Your task to perform on an android device: turn off notifications settings in the gmail app Image 0: 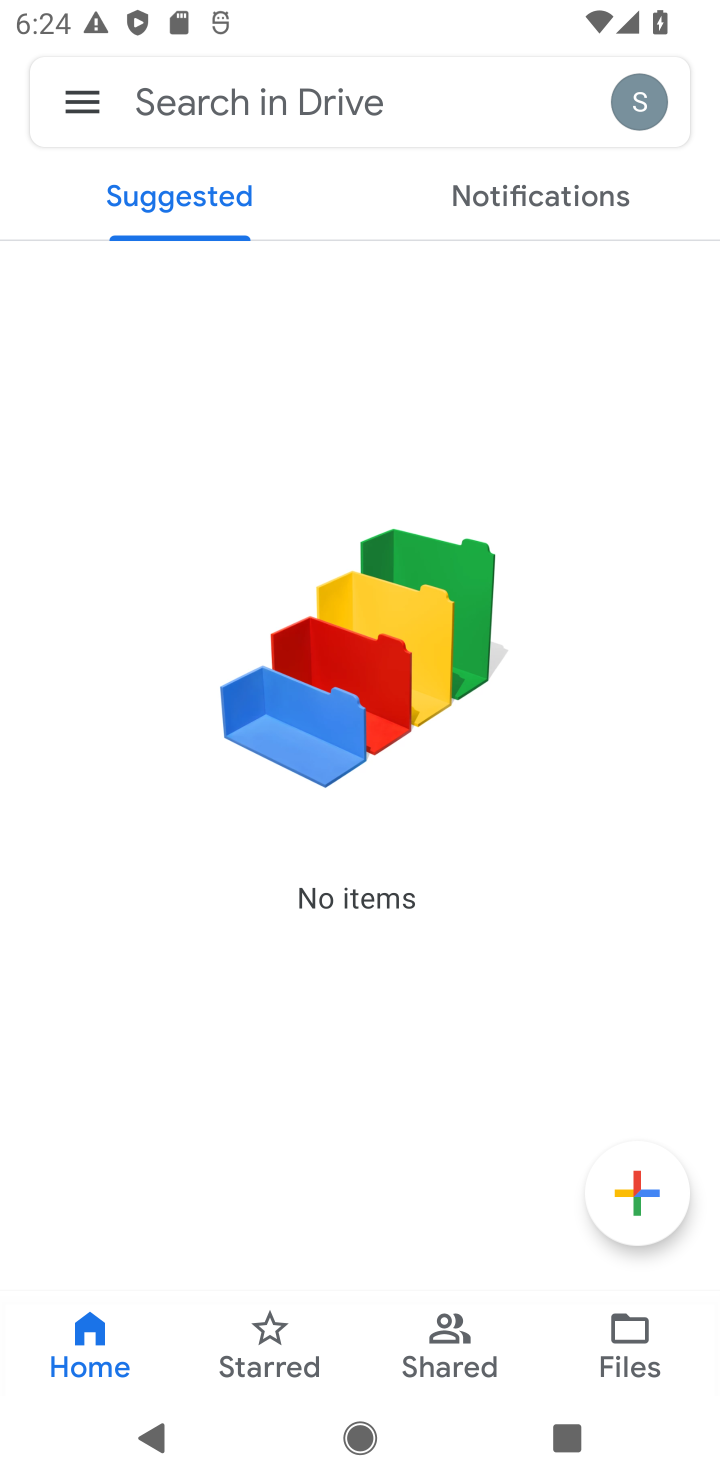
Step 0: press back button
Your task to perform on an android device: turn off notifications settings in the gmail app Image 1: 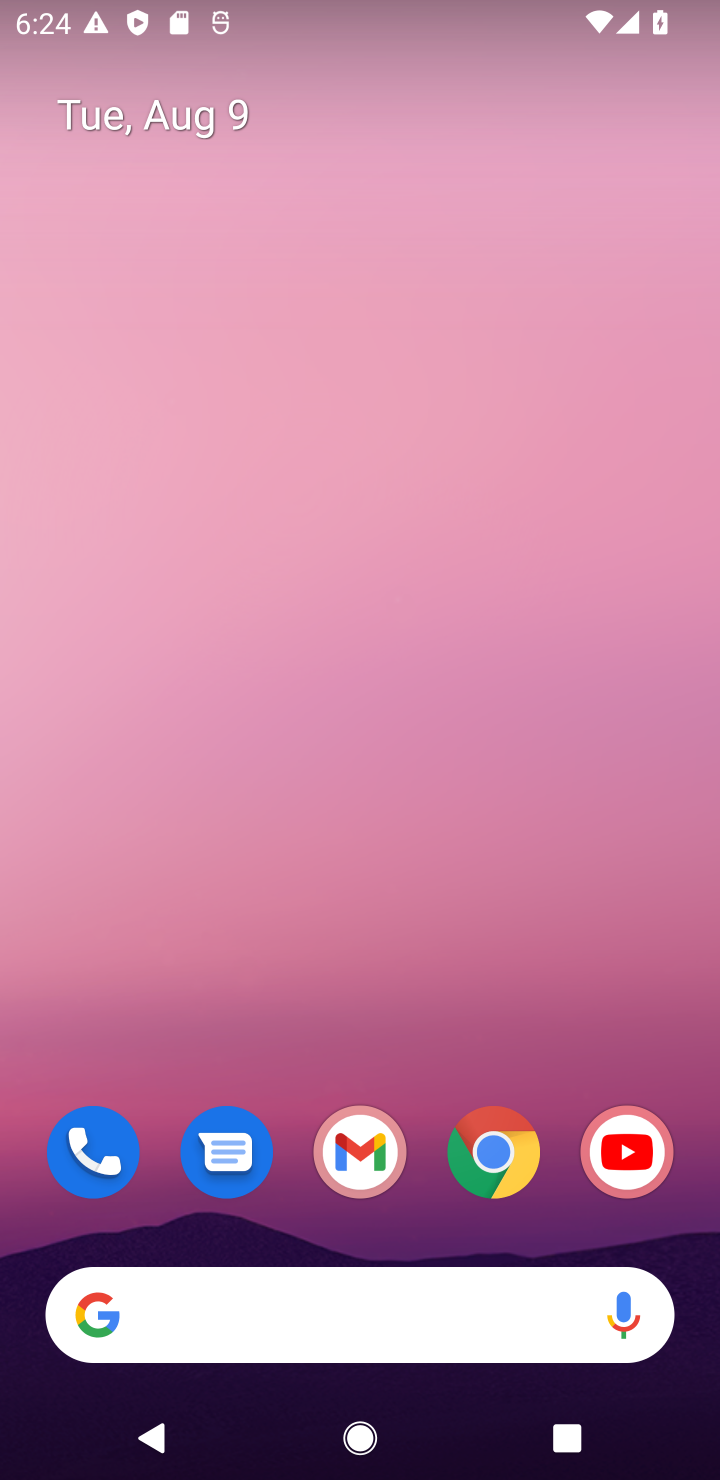
Step 1: click (373, 1142)
Your task to perform on an android device: turn off notifications settings in the gmail app Image 2: 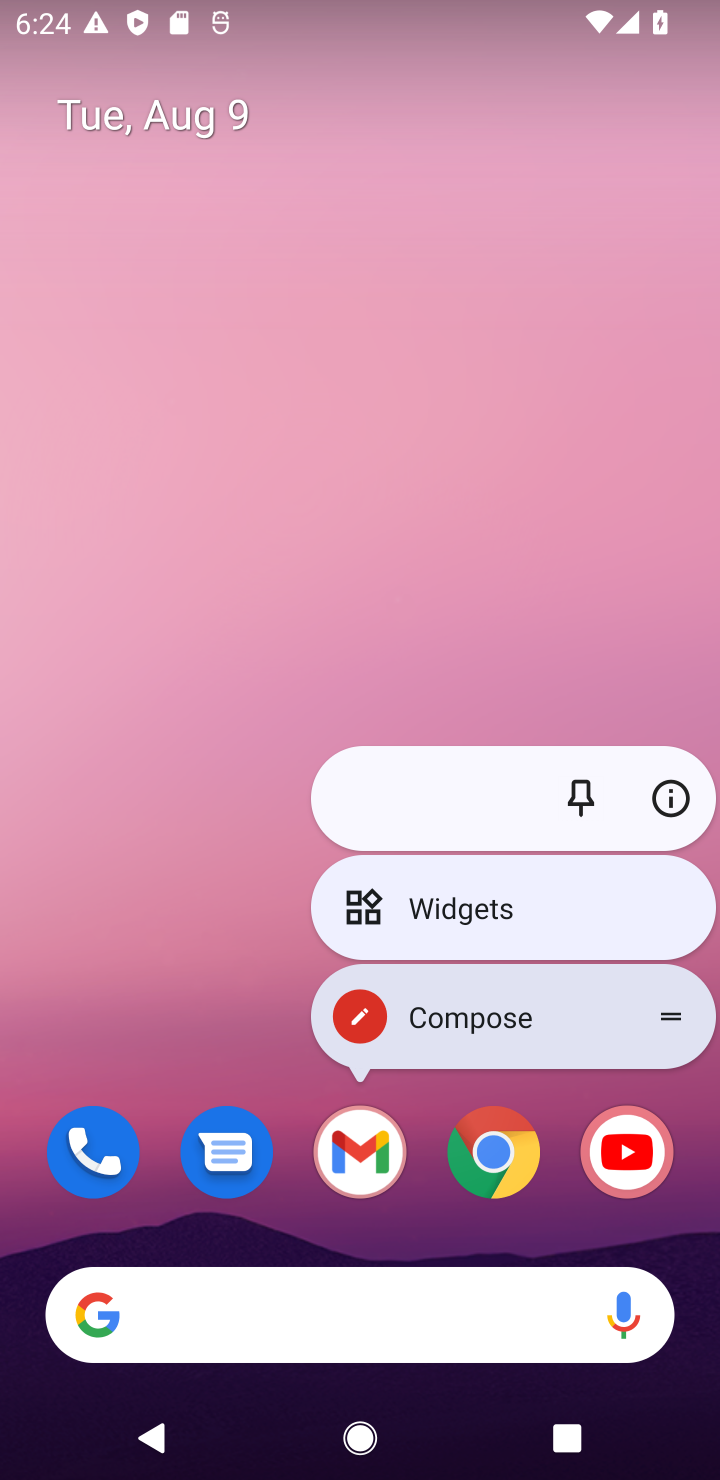
Step 2: click (656, 798)
Your task to perform on an android device: turn off notifications settings in the gmail app Image 3: 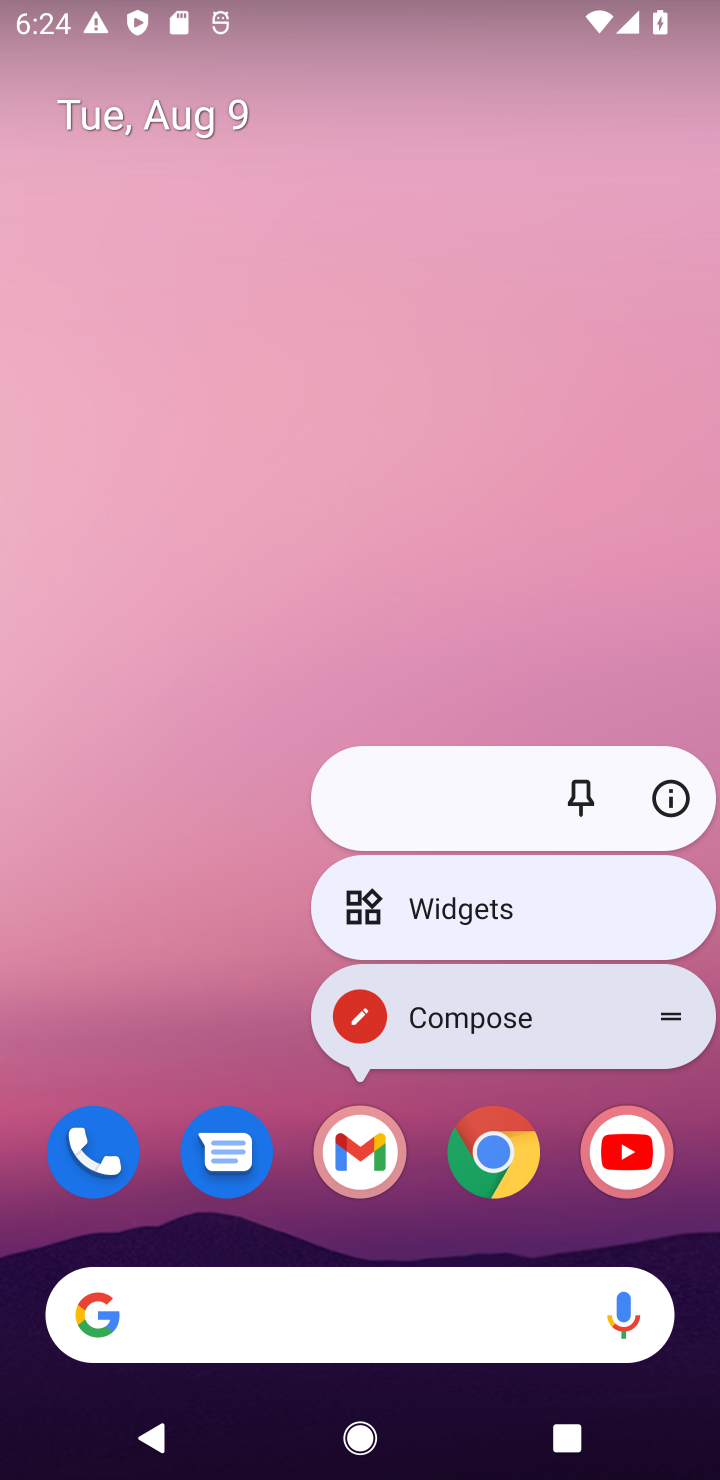
Step 3: click (691, 796)
Your task to perform on an android device: turn off notifications settings in the gmail app Image 4: 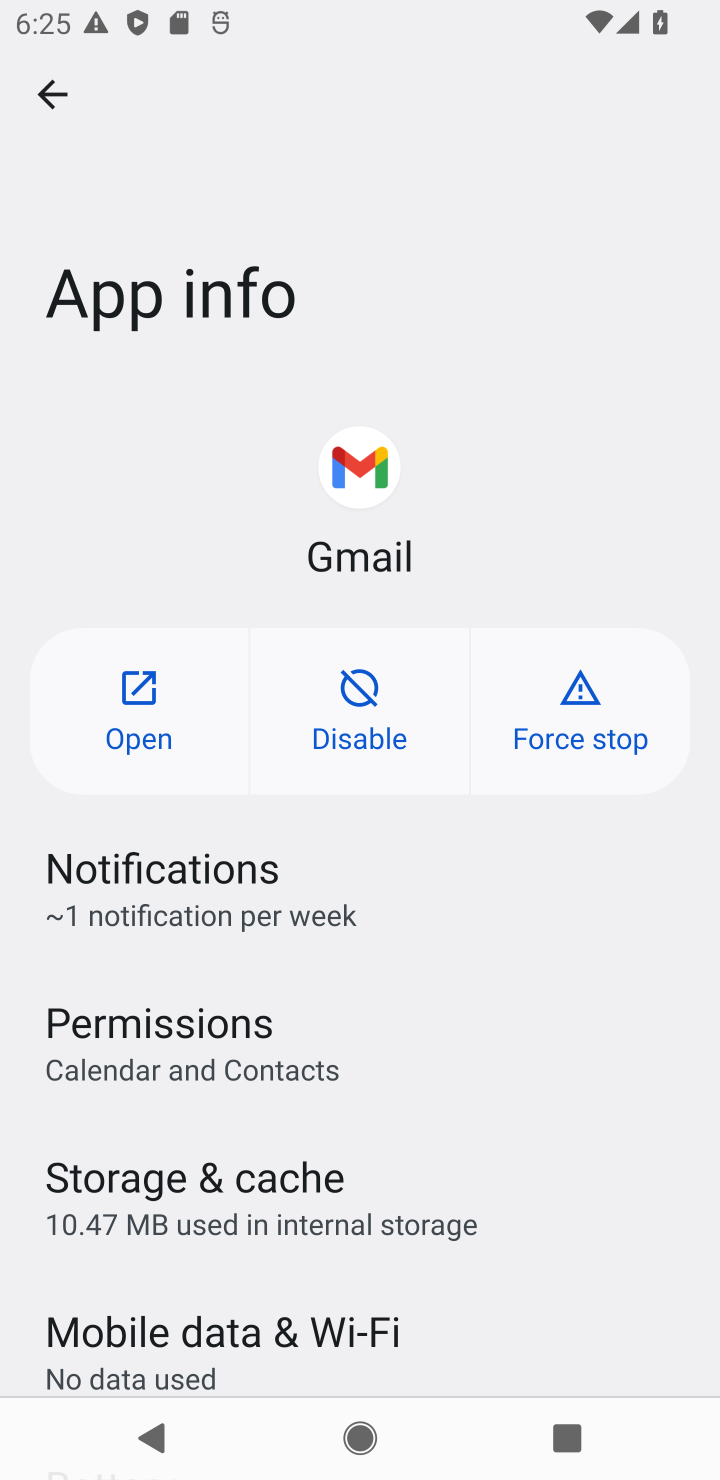
Step 4: click (311, 860)
Your task to perform on an android device: turn off notifications settings in the gmail app Image 5: 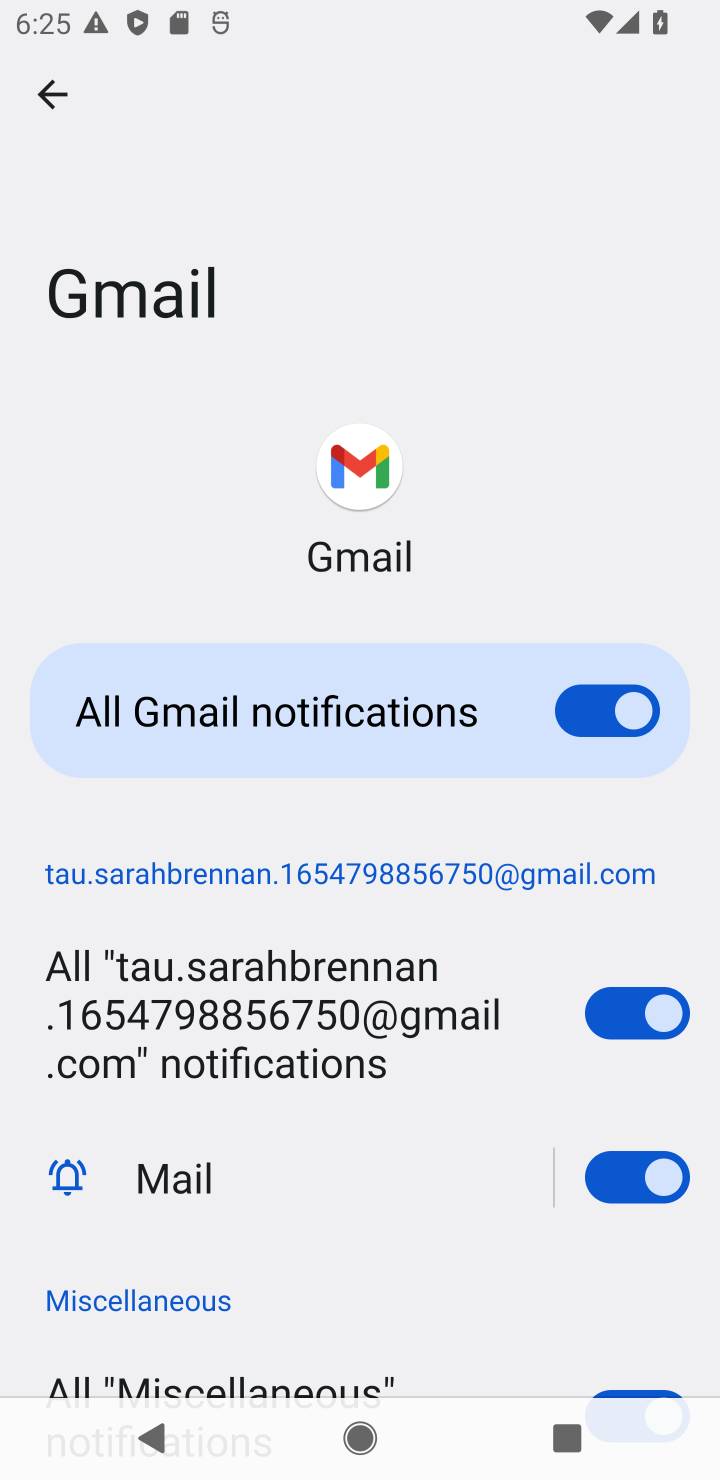
Step 5: click (626, 728)
Your task to perform on an android device: turn off notifications settings in the gmail app Image 6: 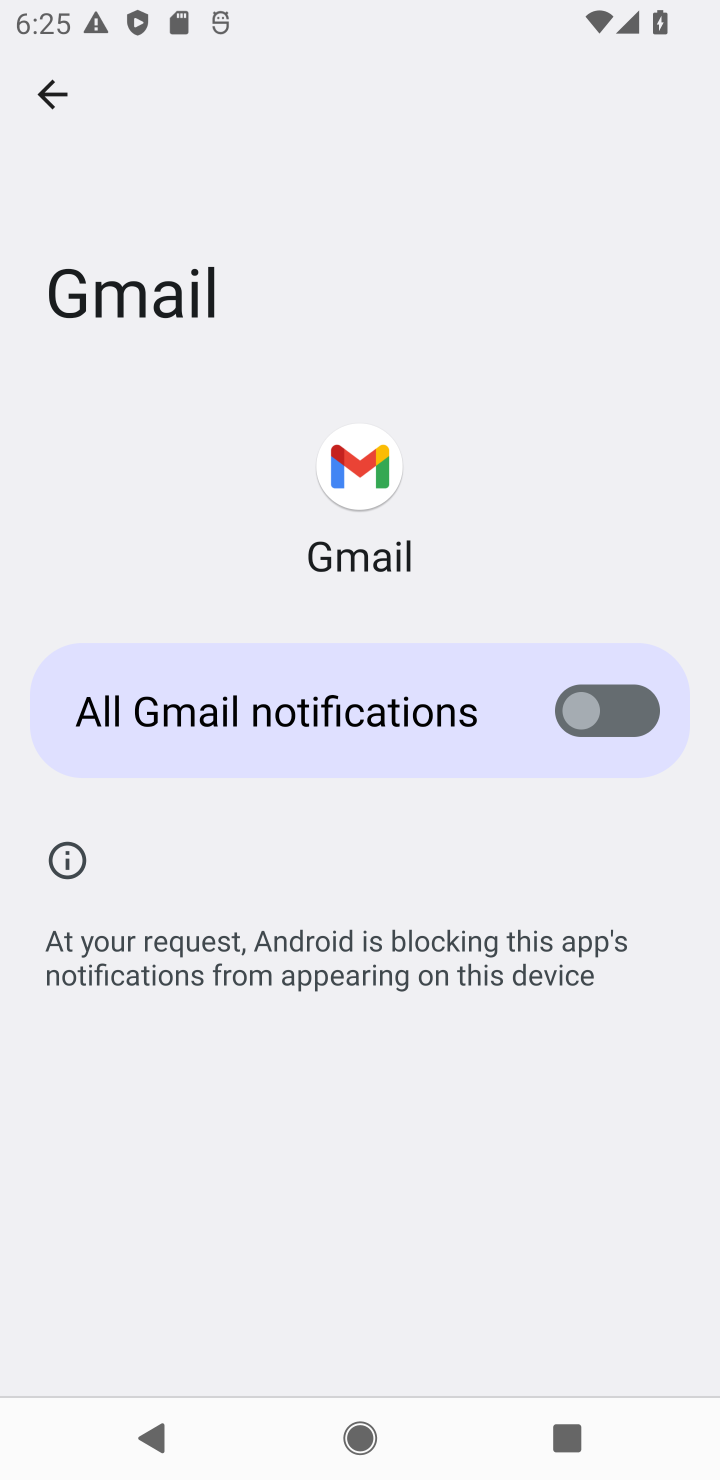
Step 6: task complete